Your task to perform on an android device: open a new tab in the chrome app Image 0: 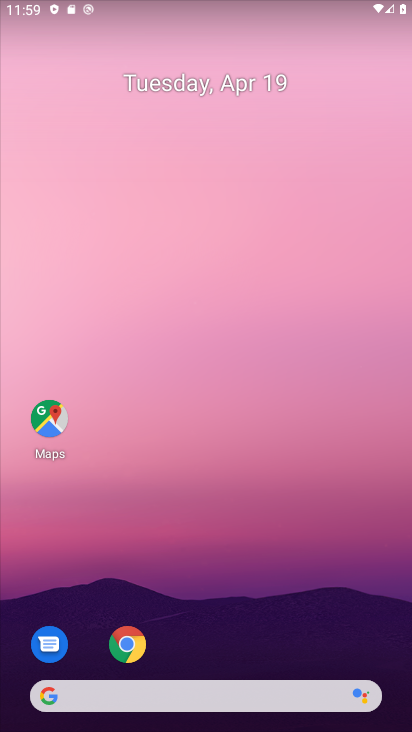
Step 0: click (132, 647)
Your task to perform on an android device: open a new tab in the chrome app Image 1: 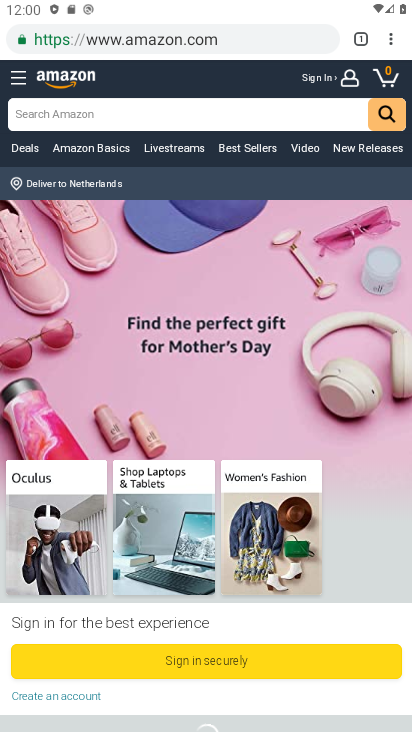
Step 1: click (388, 32)
Your task to perform on an android device: open a new tab in the chrome app Image 2: 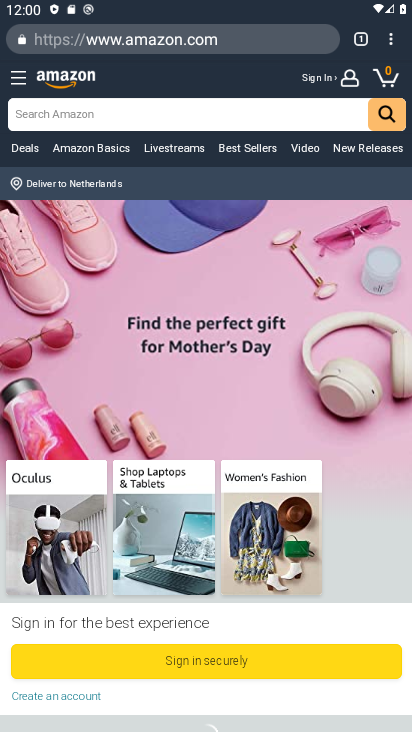
Step 2: click (388, 32)
Your task to perform on an android device: open a new tab in the chrome app Image 3: 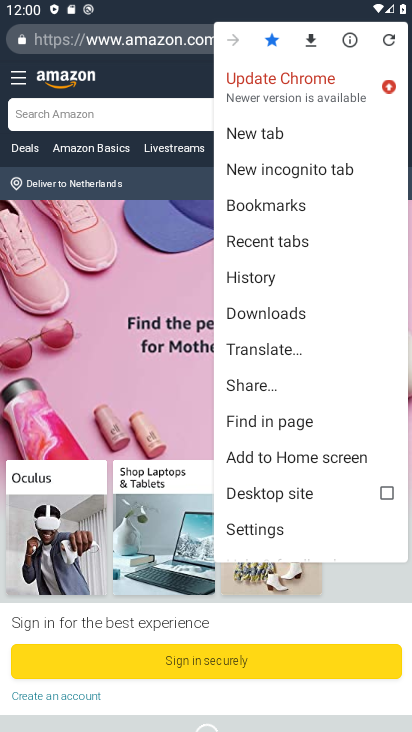
Step 3: click (312, 125)
Your task to perform on an android device: open a new tab in the chrome app Image 4: 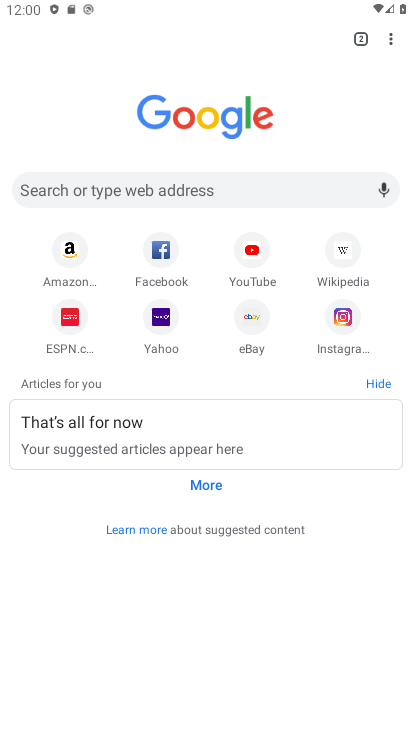
Step 4: task complete